Your task to perform on an android device: change the clock display to analog Image 0: 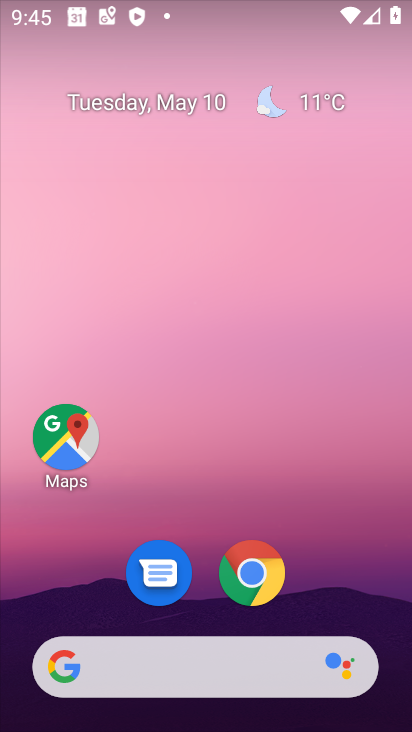
Step 0: drag from (324, 617) to (303, 75)
Your task to perform on an android device: change the clock display to analog Image 1: 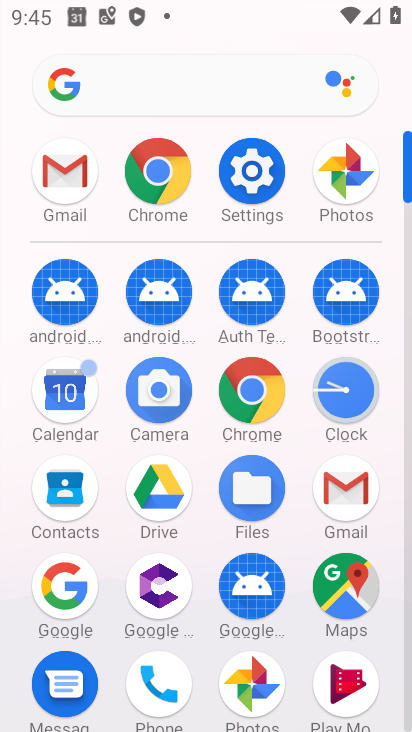
Step 1: click (363, 393)
Your task to perform on an android device: change the clock display to analog Image 2: 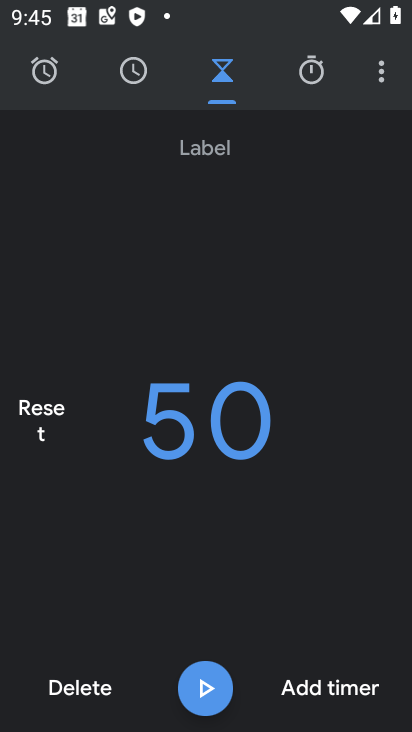
Step 2: click (385, 70)
Your task to perform on an android device: change the clock display to analog Image 3: 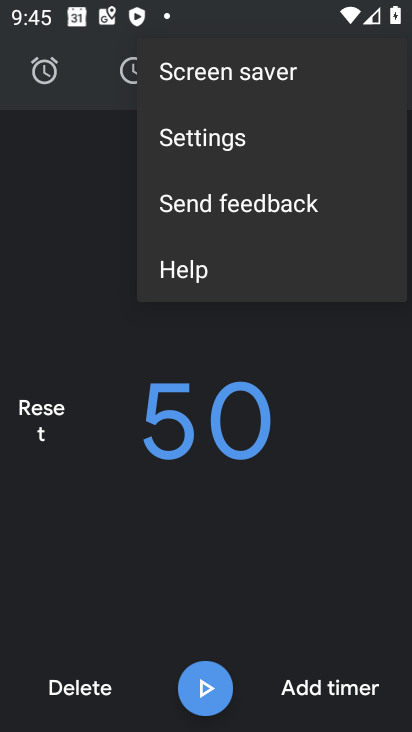
Step 3: click (205, 139)
Your task to perform on an android device: change the clock display to analog Image 4: 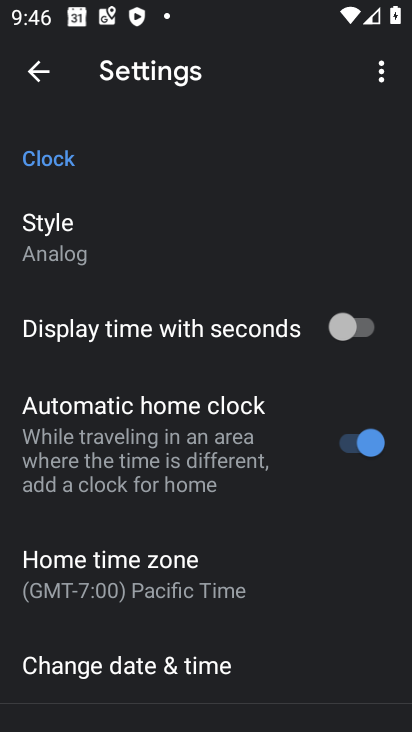
Step 4: task complete